Your task to perform on an android device: check google app version Image 0: 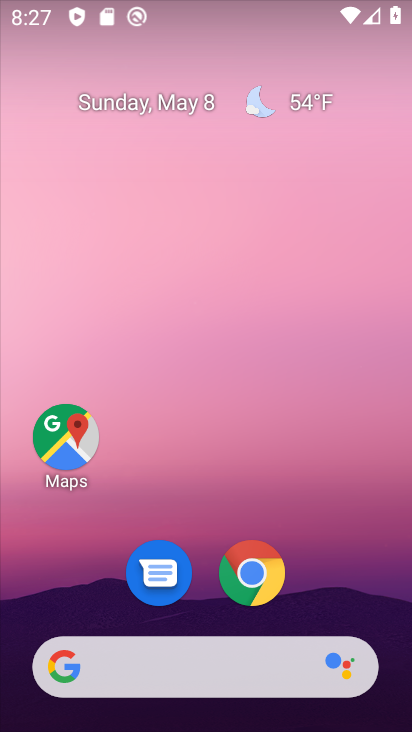
Step 0: drag from (232, 723) to (234, 228)
Your task to perform on an android device: check google app version Image 1: 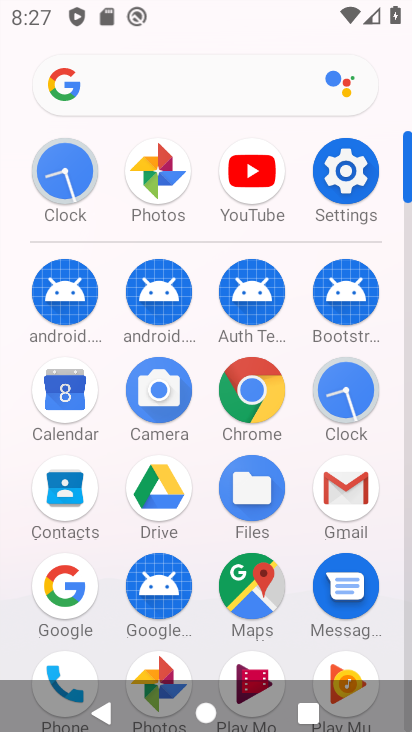
Step 1: click (74, 584)
Your task to perform on an android device: check google app version Image 2: 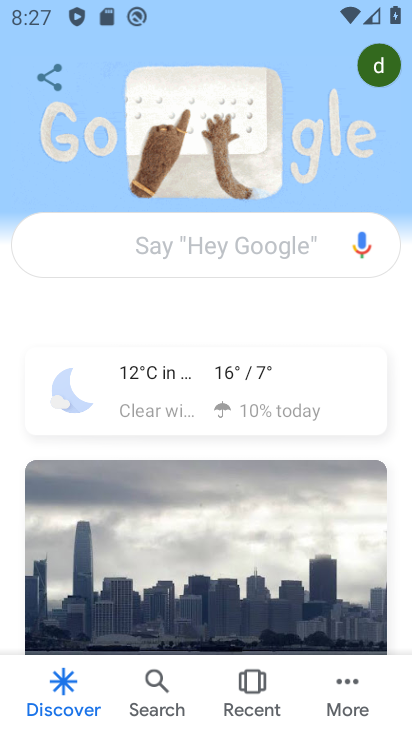
Step 2: click (344, 679)
Your task to perform on an android device: check google app version Image 3: 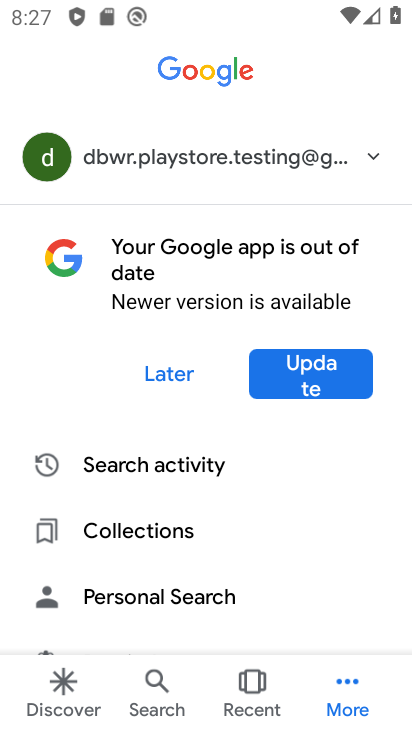
Step 3: drag from (250, 613) to (250, 315)
Your task to perform on an android device: check google app version Image 4: 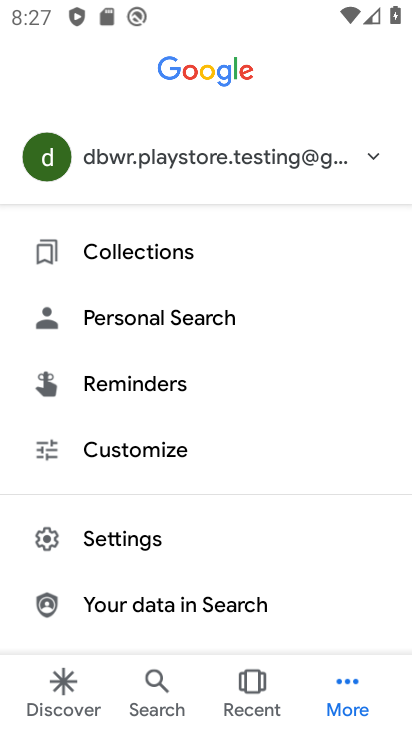
Step 4: click (114, 535)
Your task to perform on an android device: check google app version Image 5: 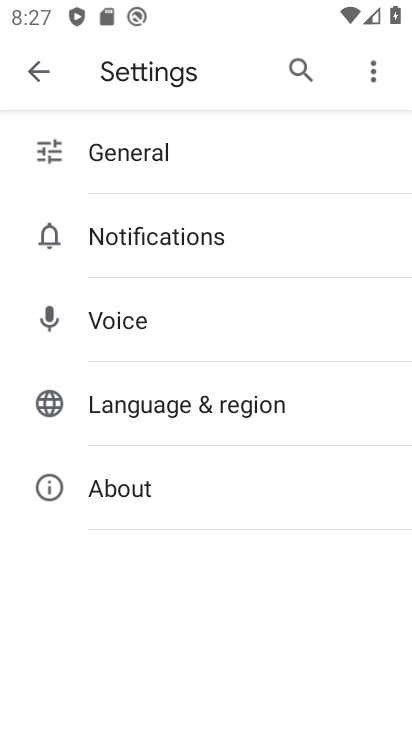
Step 5: click (119, 480)
Your task to perform on an android device: check google app version Image 6: 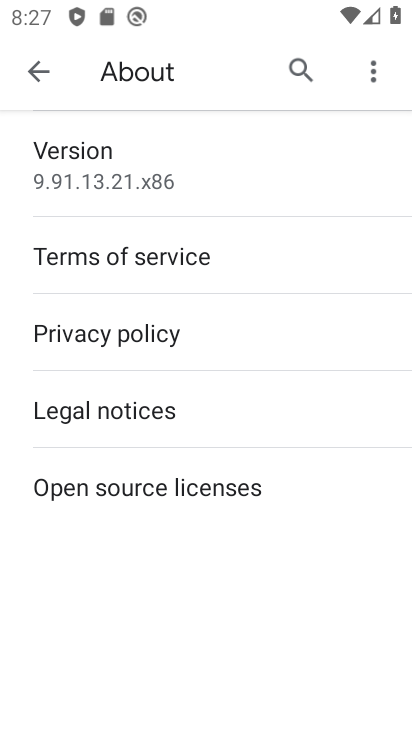
Step 6: task complete